Your task to perform on an android device: Open sound settings Image 0: 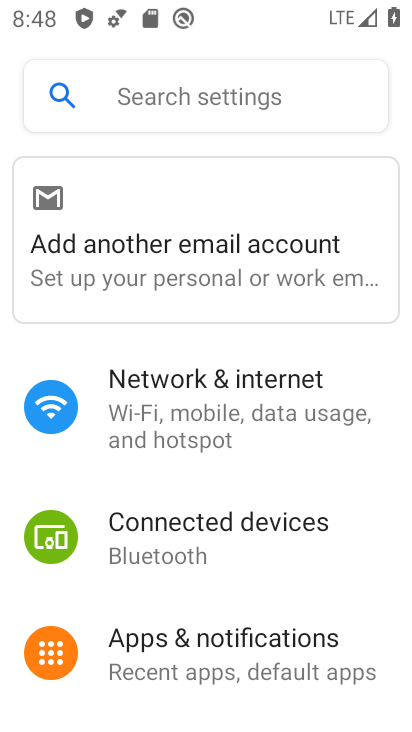
Step 0: drag from (225, 544) to (254, 206)
Your task to perform on an android device: Open sound settings Image 1: 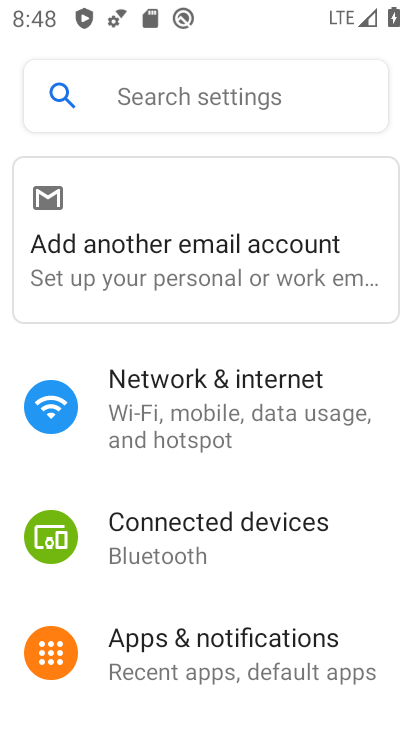
Step 1: drag from (198, 636) to (278, 167)
Your task to perform on an android device: Open sound settings Image 2: 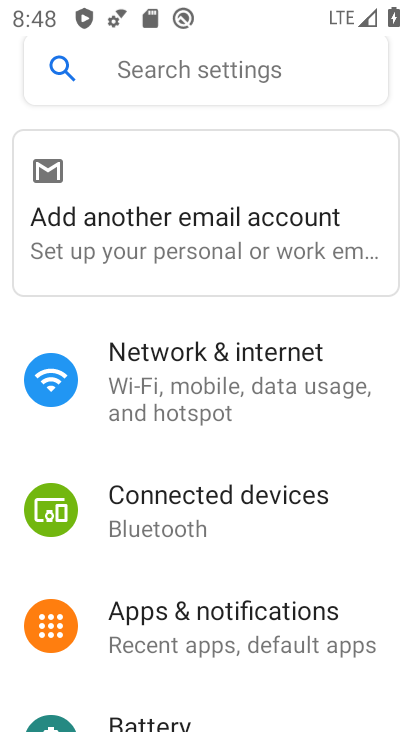
Step 2: drag from (215, 593) to (279, 133)
Your task to perform on an android device: Open sound settings Image 3: 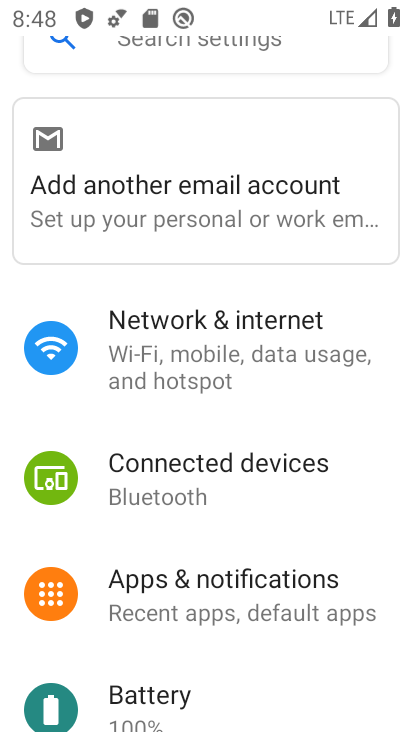
Step 3: drag from (245, 576) to (321, 132)
Your task to perform on an android device: Open sound settings Image 4: 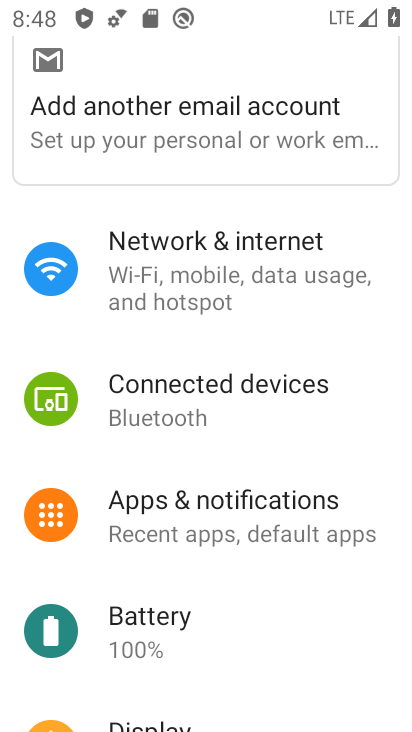
Step 4: click (362, 26)
Your task to perform on an android device: Open sound settings Image 5: 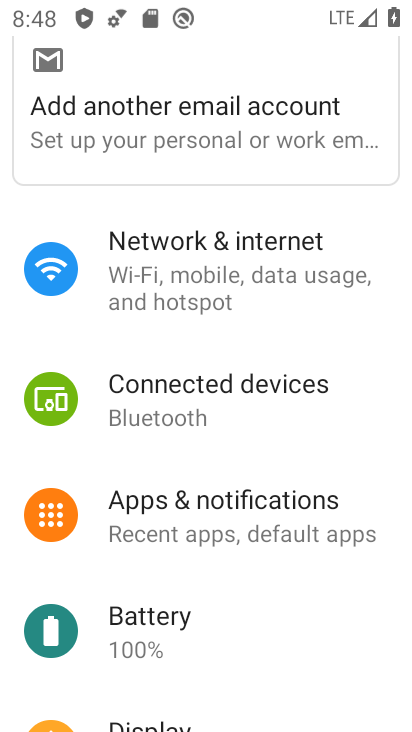
Step 5: drag from (271, 291) to (274, 185)
Your task to perform on an android device: Open sound settings Image 6: 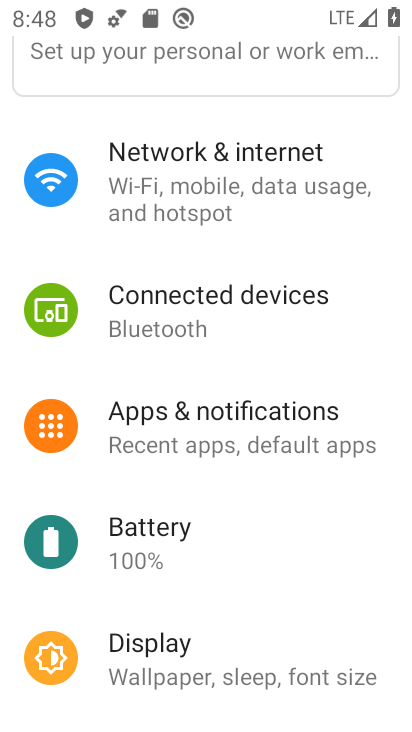
Step 6: drag from (234, 638) to (310, 287)
Your task to perform on an android device: Open sound settings Image 7: 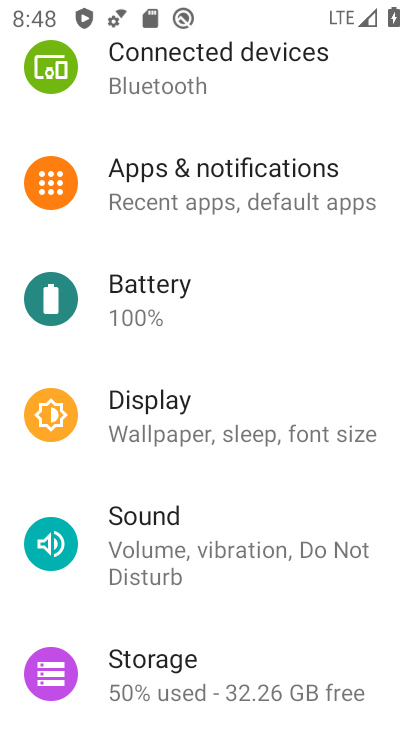
Step 7: drag from (275, 306) to (287, 265)
Your task to perform on an android device: Open sound settings Image 8: 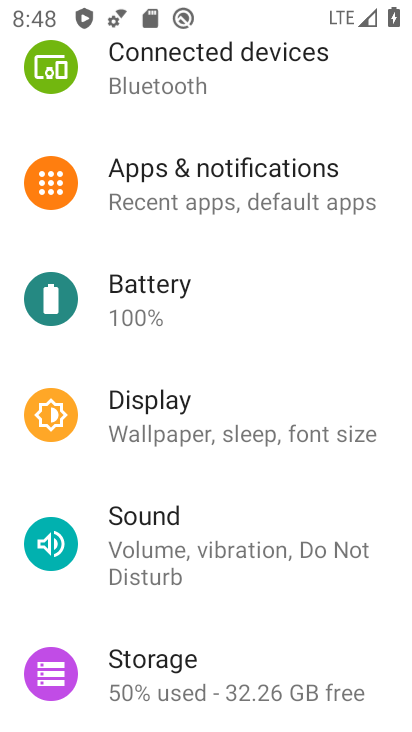
Step 8: drag from (189, 546) to (296, 178)
Your task to perform on an android device: Open sound settings Image 9: 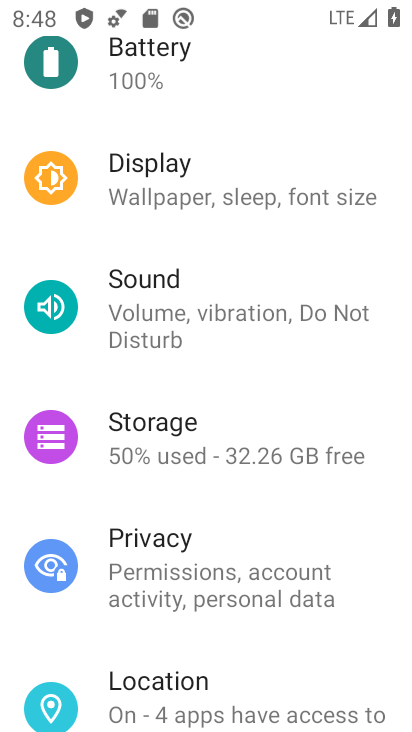
Step 9: drag from (188, 671) to (244, 282)
Your task to perform on an android device: Open sound settings Image 10: 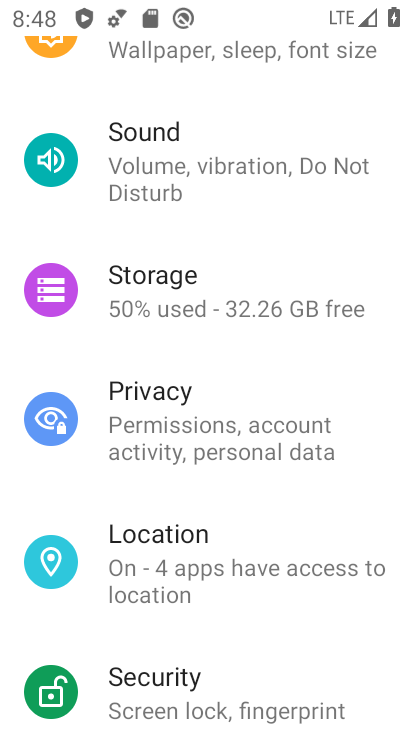
Step 10: drag from (257, 620) to (371, 131)
Your task to perform on an android device: Open sound settings Image 11: 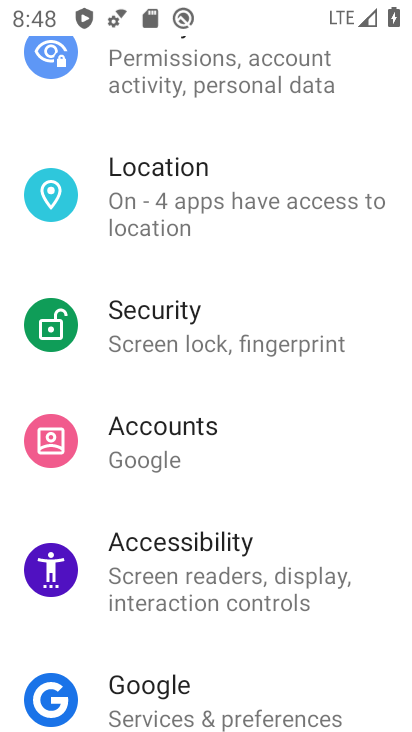
Step 11: drag from (279, 137) to (245, 579)
Your task to perform on an android device: Open sound settings Image 12: 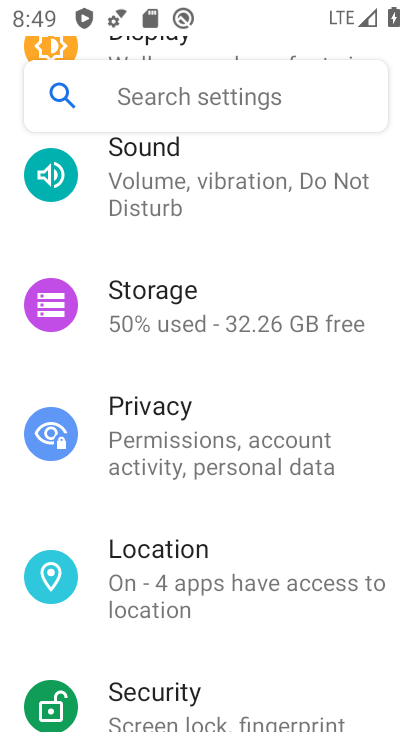
Step 12: click (201, 179)
Your task to perform on an android device: Open sound settings Image 13: 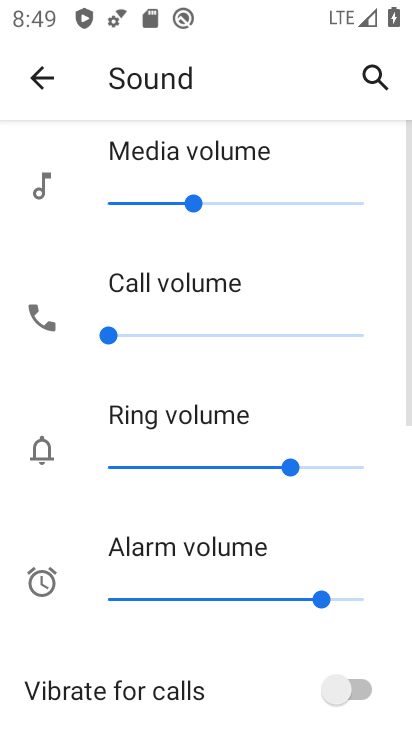
Step 13: task complete